Your task to perform on an android device: Open wifi settings Image 0: 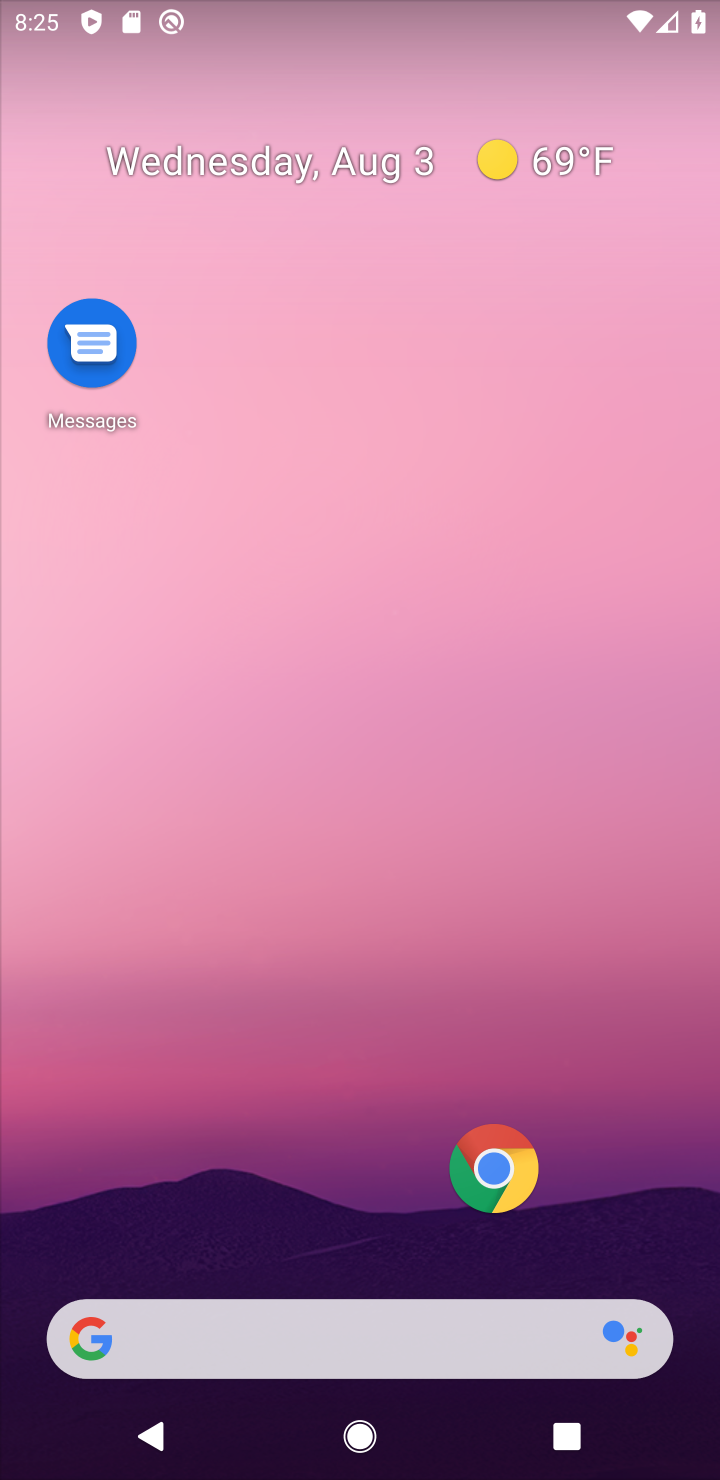
Step 0: drag from (448, 1266) to (362, 134)
Your task to perform on an android device: Open wifi settings Image 1: 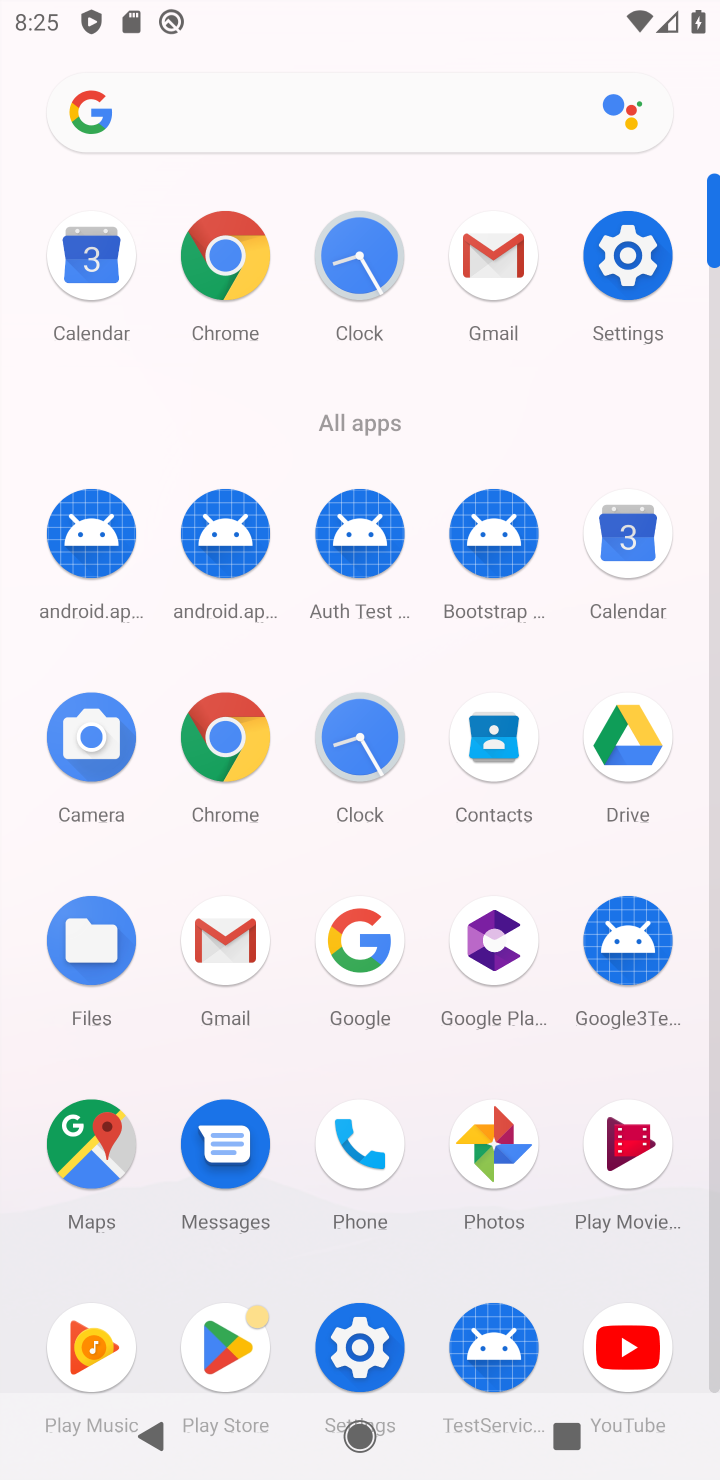
Step 1: click (612, 289)
Your task to perform on an android device: Open wifi settings Image 2: 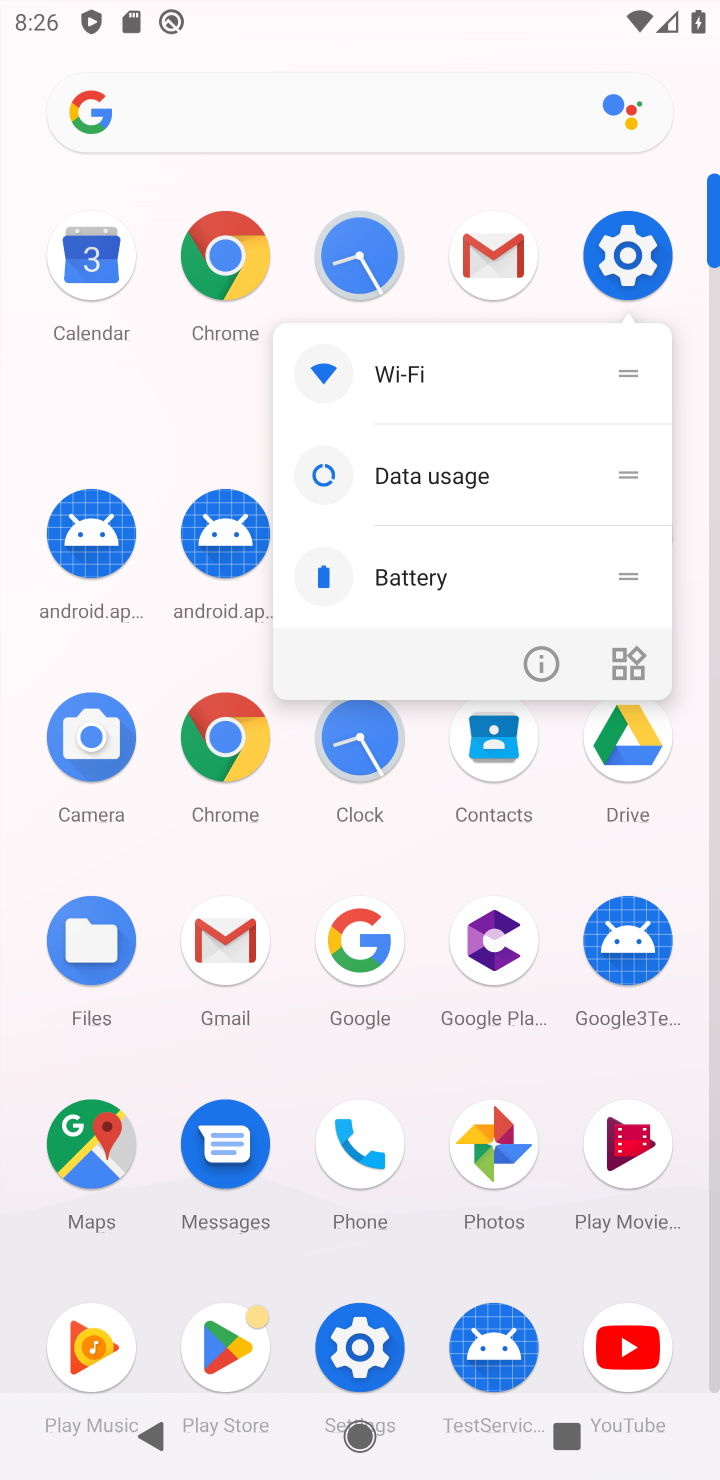
Step 2: click (633, 247)
Your task to perform on an android device: Open wifi settings Image 3: 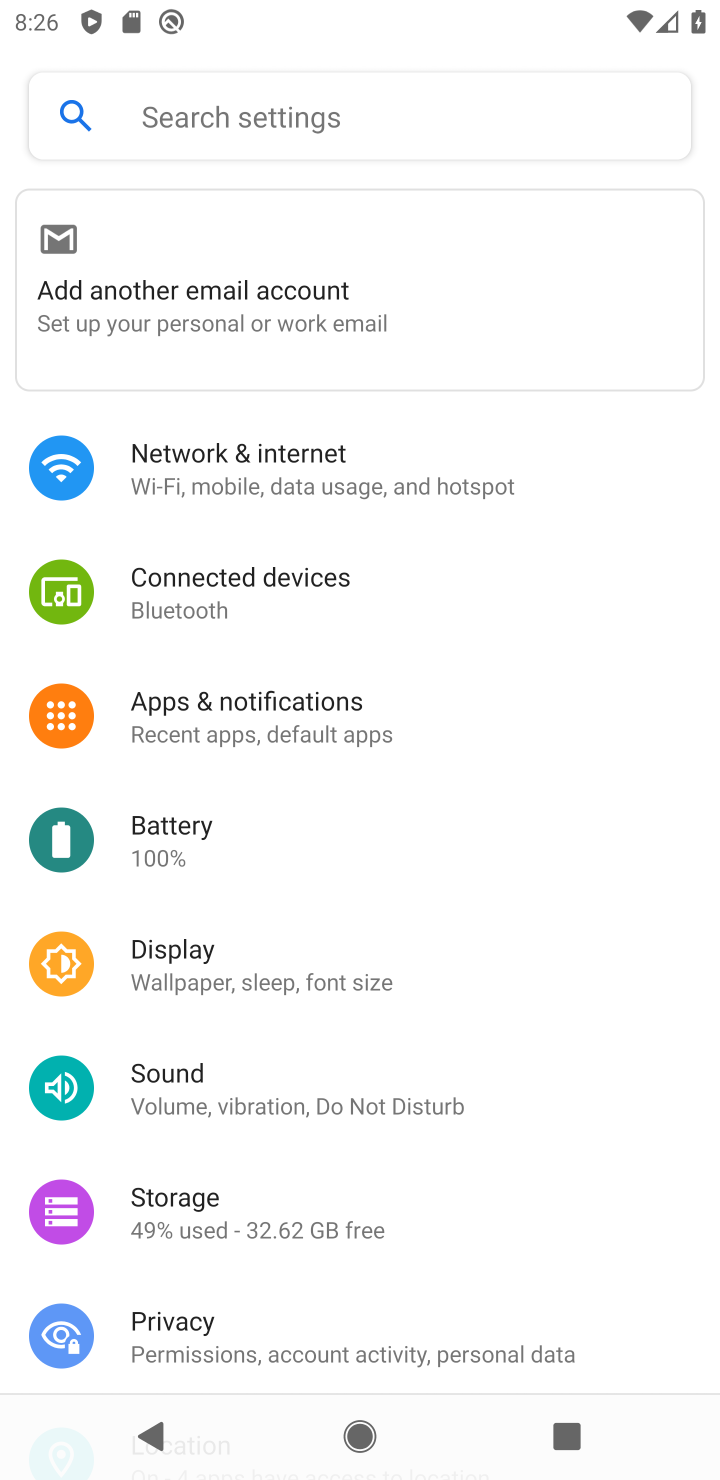
Step 3: click (171, 495)
Your task to perform on an android device: Open wifi settings Image 4: 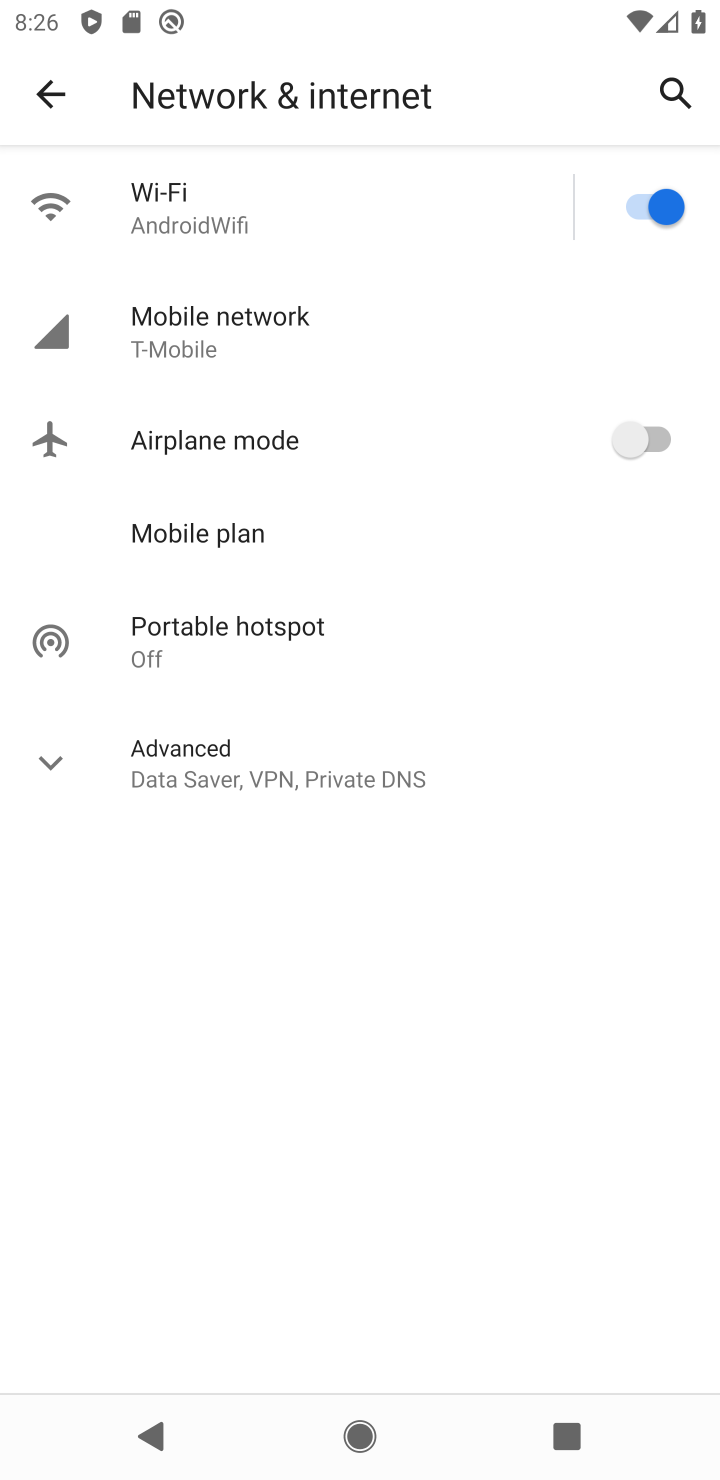
Step 4: click (232, 233)
Your task to perform on an android device: Open wifi settings Image 5: 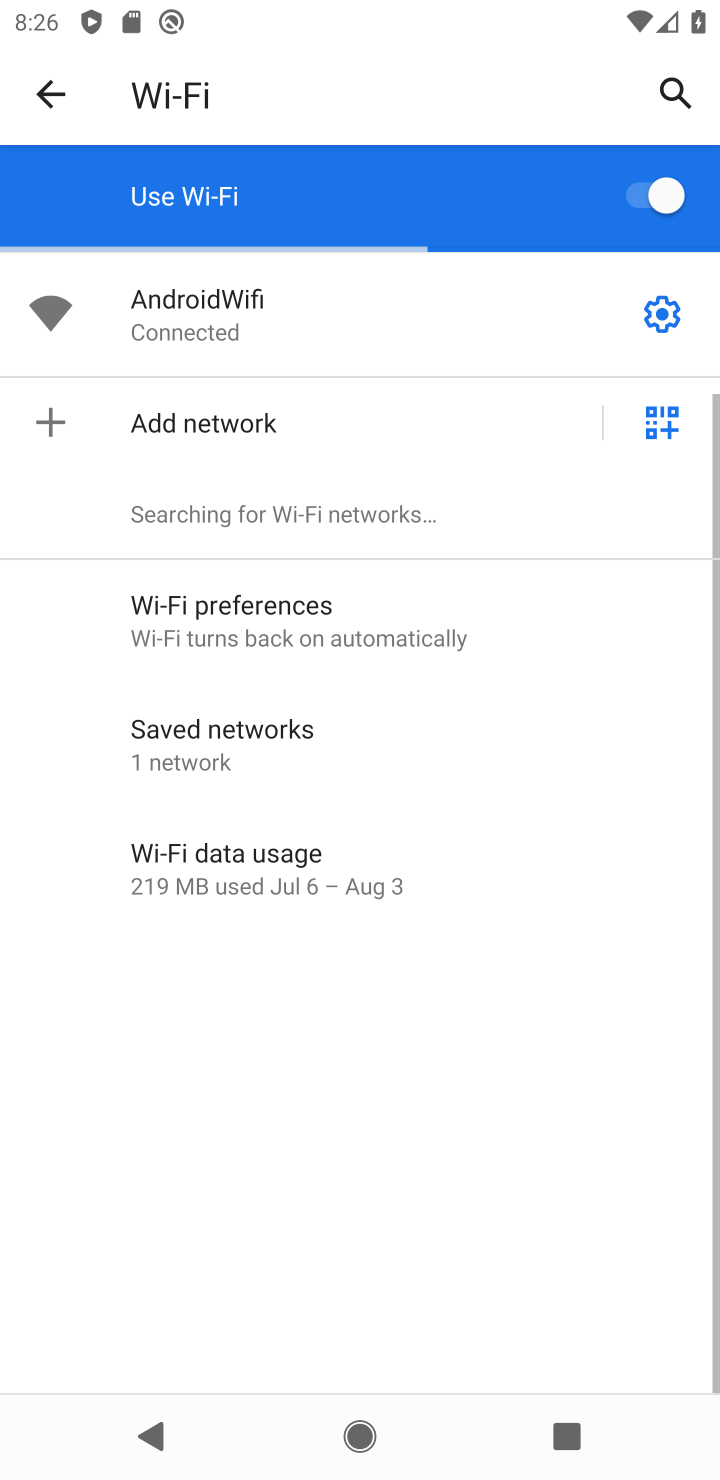
Step 5: task complete